Your task to perform on an android device: Open the Play Movies app and select the watchlist tab. Image 0: 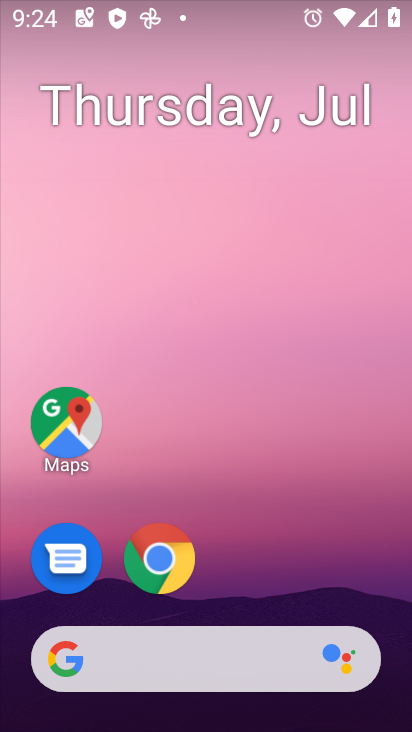
Step 0: drag from (369, 570) to (377, 123)
Your task to perform on an android device: Open the Play Movies app and select the watchlist tab. Image 1: 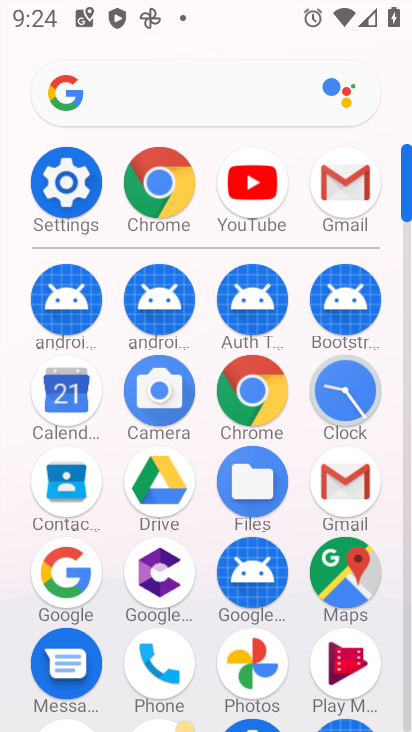
Step 1: click (345, 661)
Your task to perform on an android device: Open the Play Movies app and select the watchlist tab. Image 2: 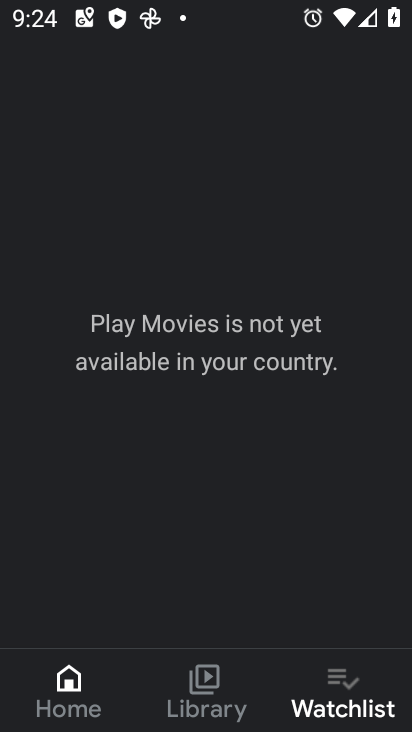
Step 2: task complete